Your task to perform on an android device: What's the weather? Image 0: 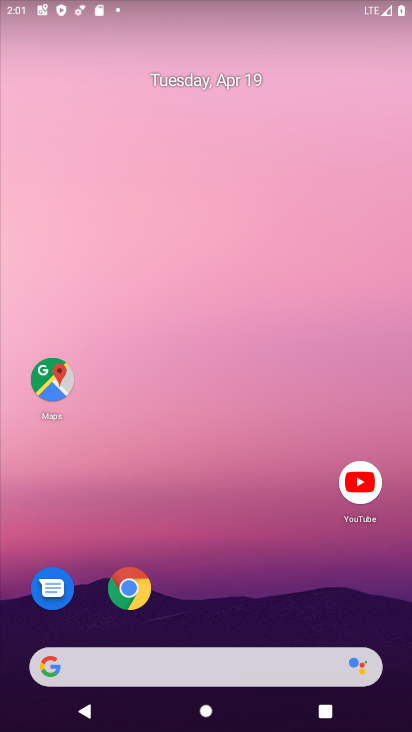
Step 0: drag from (247, 606) to (289, 202)
Your task to perform on an android device: What's the weather? Image 1: 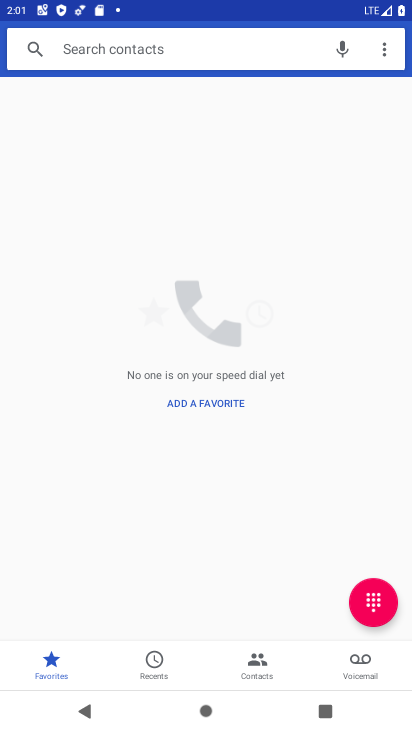
Step 1: press home button
Your task to perform on an android device: What's the weather? Image 2: 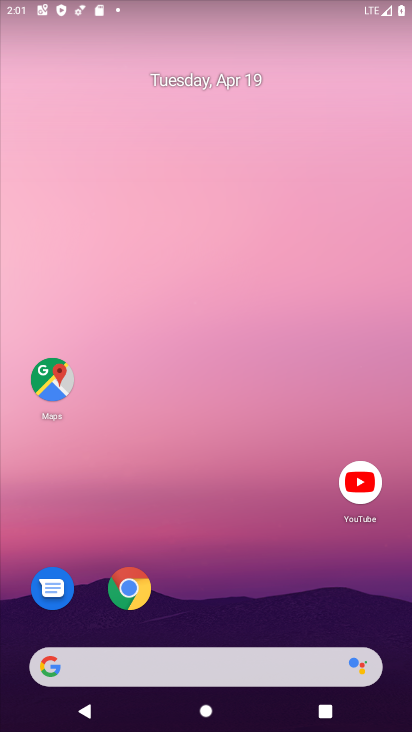
Step 2: click (147, 668)
Your task to perform on an android device: What's the weather? Image 3: 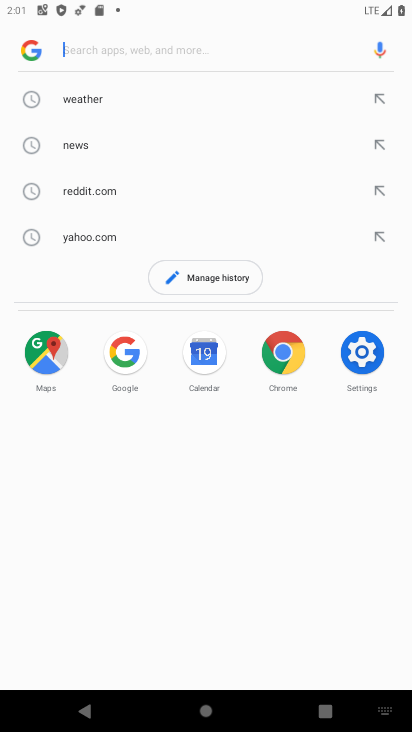
Step 3: type "what's the weather?"
Your task to perform on an android device: What's the weather? Image 4: 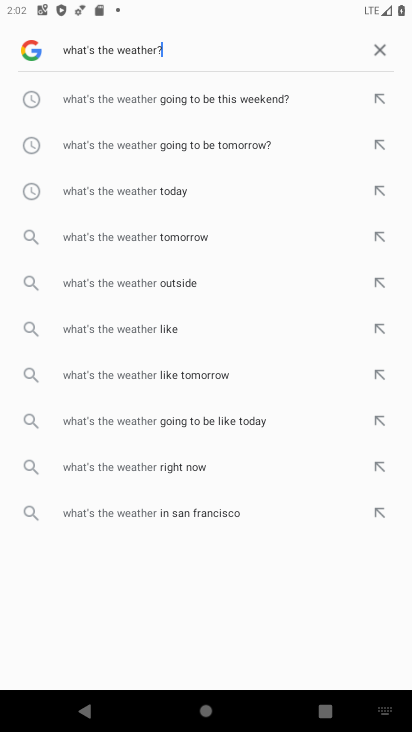
Step 4: click (203, 204)
Your task to perform on an android device: What's the weather? Image 5: 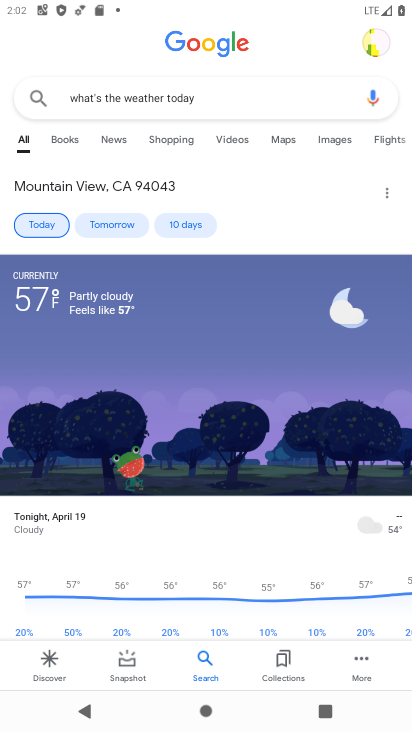
Step 5: task complete